Your task to perform on an android device: Search for "usb-b" on ebay.com, select the first entry, add it to the cart, then select checkout. Image 0: 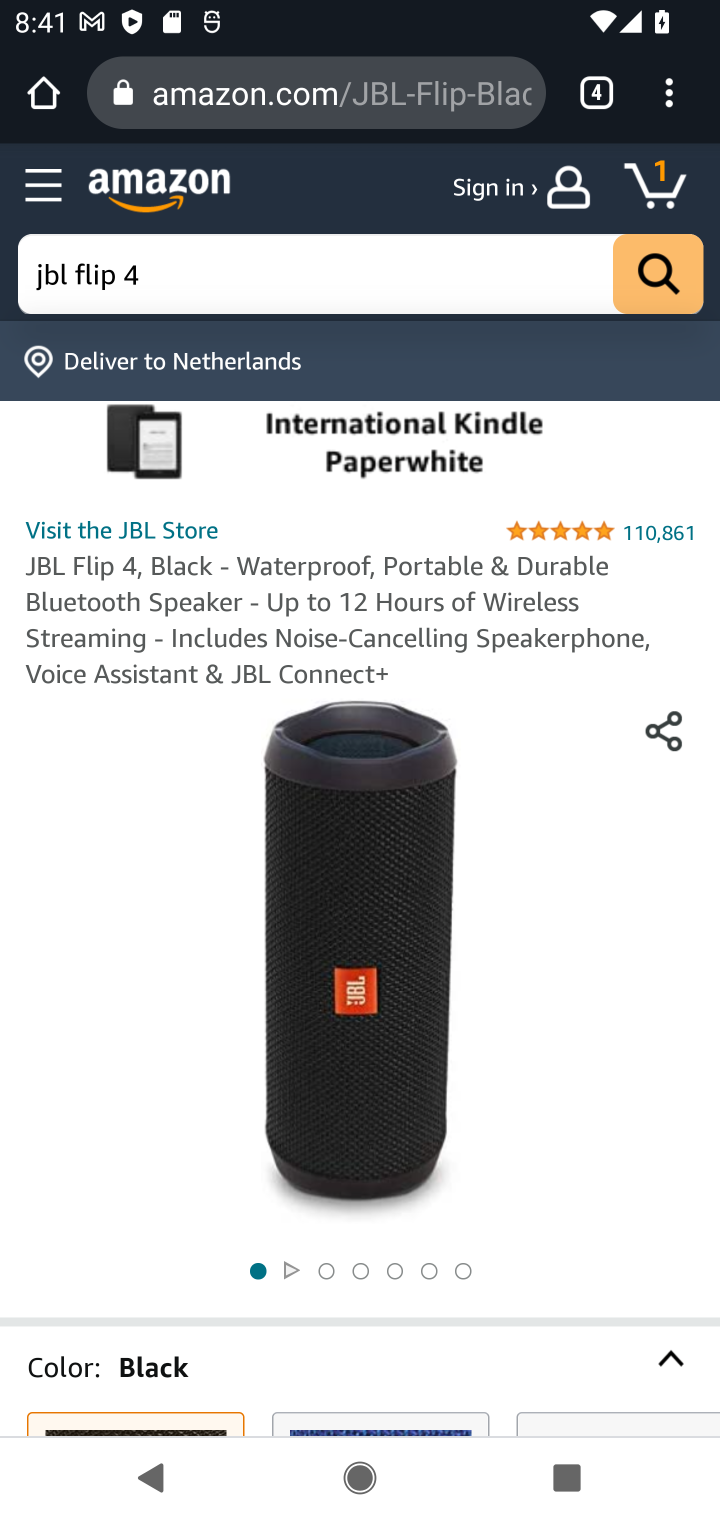
Step 0: drag from (508, 1375) to (500, 402)
Your task to perform on an android device: Search for "usb-b" on ebay.com, select the first entry, add it to the cart, then select checkout. Image 1: 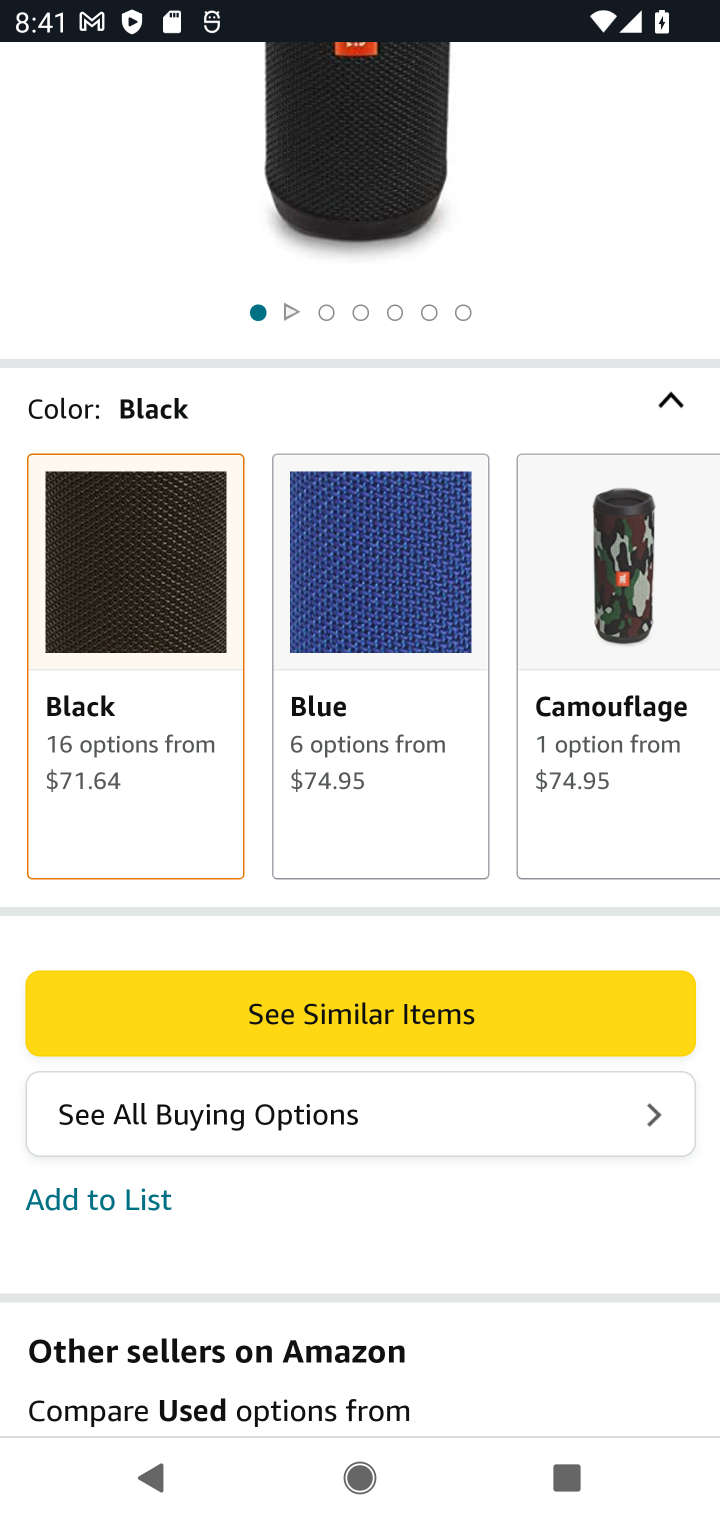
Step 1: click (546, 1022)
Your task to perform on an android device: Search for "usb-b" on ebay.com, select the first entry, add it to the cart, then select checkout. Image 2: 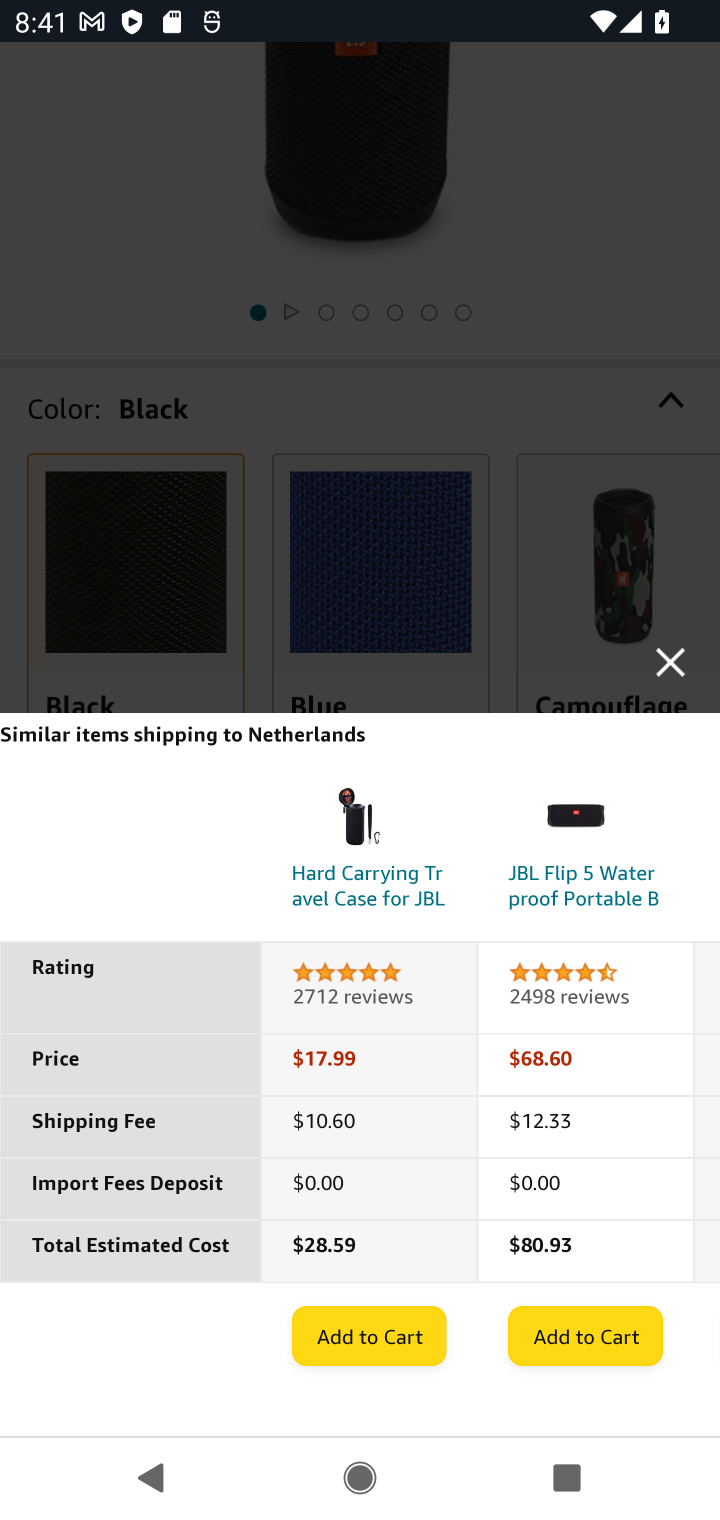
Step 2: task complete